Your task to perform on an android device: Show me productivity apps on the Play Store Image 0: 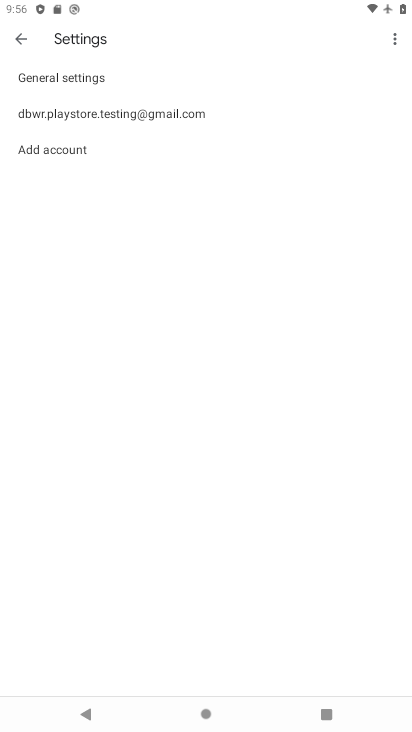
Step 0: press home button
Your task to perform on an android device: Show me productivity apps on the Play Store Image 1: 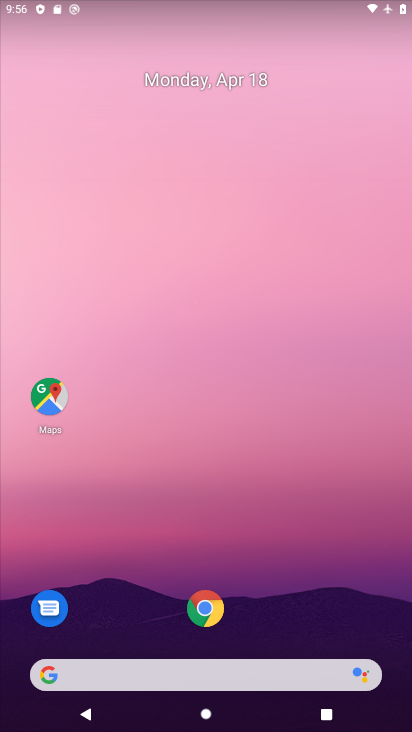
Step 1: drag from (309, 573) to (334, 96)
Your task to perform on an android device: Show me productivity apps on the Play Store Image 2: 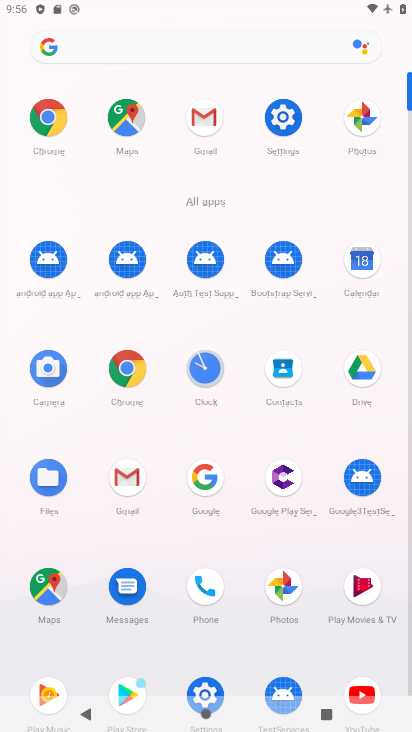
Step 2: drag from (321, 643) to (306, 243)
Your task to perform on an android device: Show me productivity apps on the Play Store Image 3: 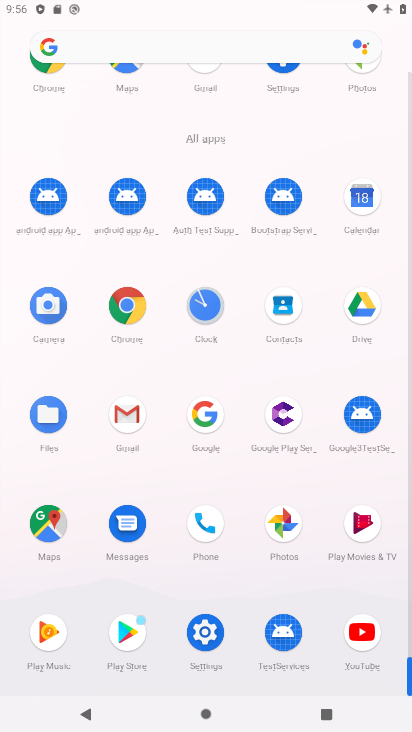
Step 3: click (121, 627)
Your task to perform on an android device: Show me productivity apps on the Play Store Image 4: 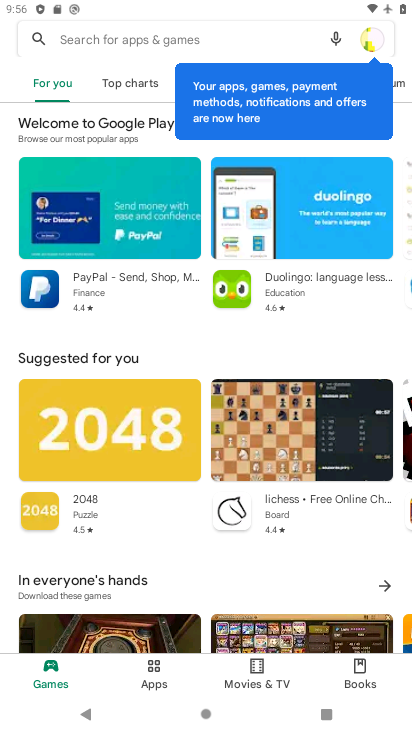
Step 4: click (155, 99)
Your task to perform on an android device: Show me productivity apps on the Play Store Image 5: 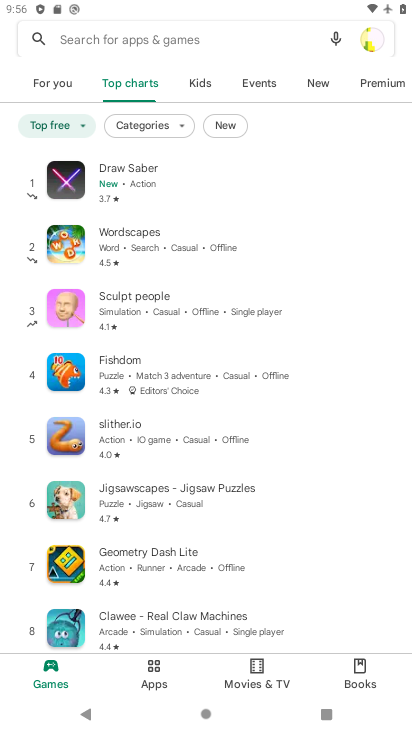
Step 5: drag from (359, 83) to (232, 83)
Your task to perform on an android device: Show me productivity apps on the Play Store Image 6: 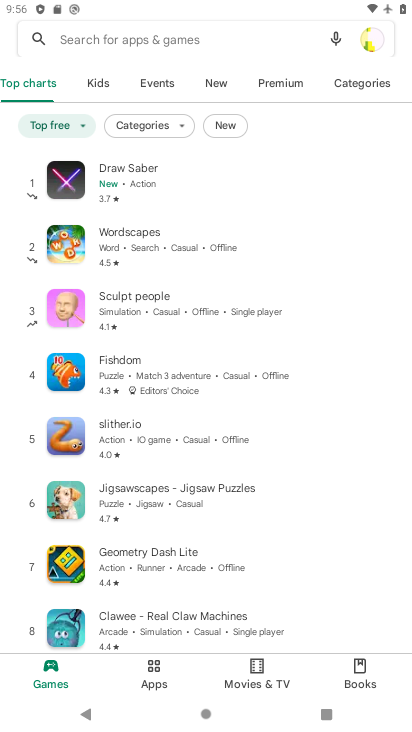
Step 6: click (349, 89)
Your task to perform on an android device: Show me productivity apps on the Play Store Image 7: 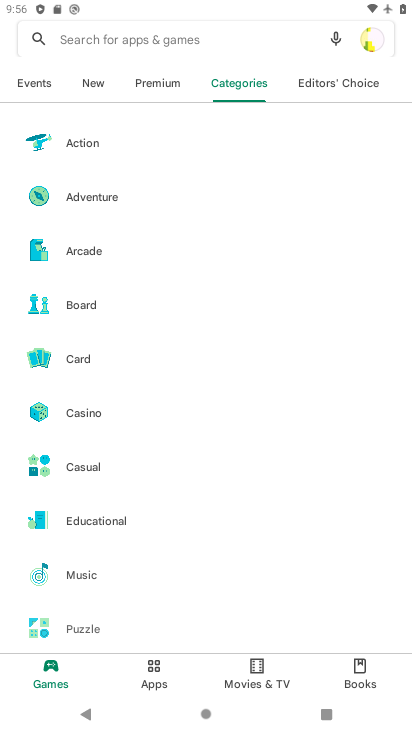
Step 7: drag from (269, 456) to (250, 228)
Your task to perform on an android device: Show me productivity apps on the Play Store Image 8: 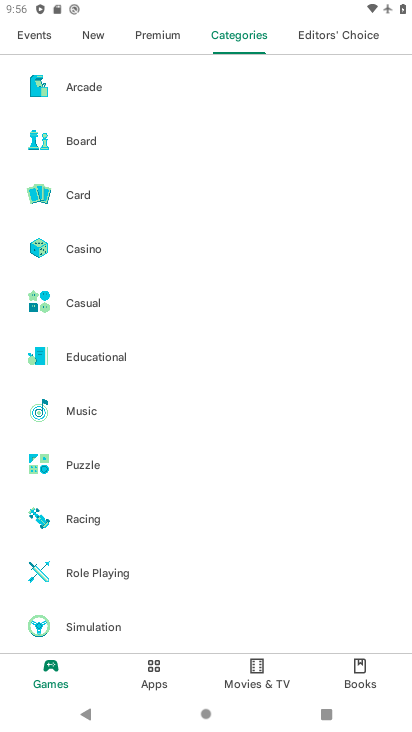
Step 8: drag from (238, 598) to (248, 433)
Your task to perform on an android device: Show me productivity apps on the Play Store Image 9: 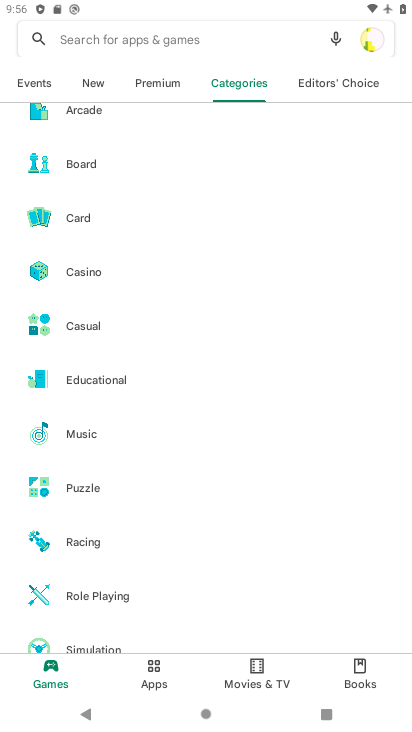
Step 9: drag from (188, 257) to (212, 452)
Your task to perform on an android device: Show me productivity apps on the Play Store Image 10: 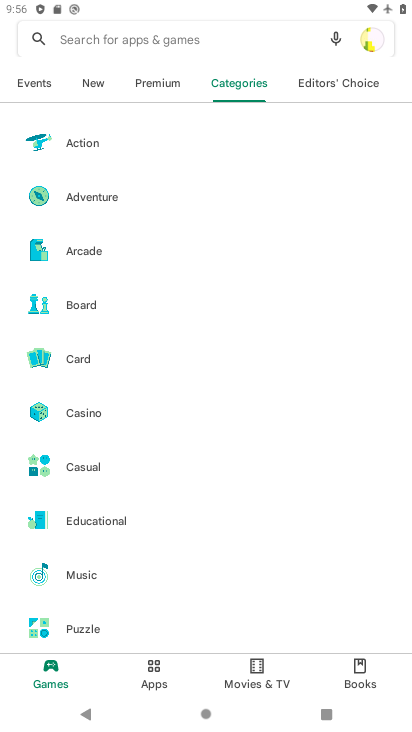
Step 10: drag from (164, 265) to (175, 357)
Your task to perform on an android device: Show me productivity apps on the Play Store Image 11: 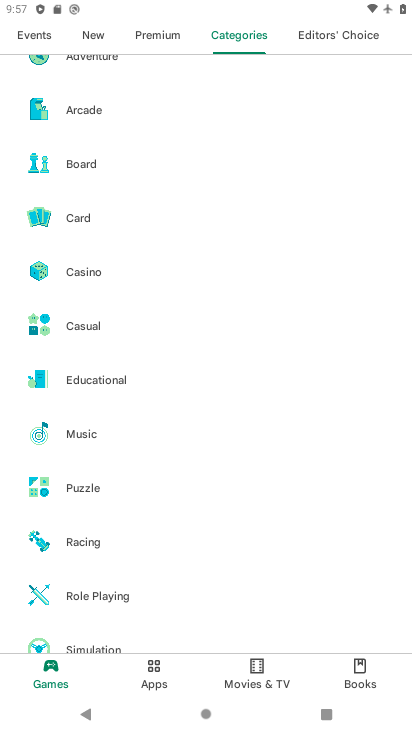
Step 11: drag from (160, 532) to (163, 202)
Your task to perform on an android device: Show me productivity apps on the Play Store Image 12: 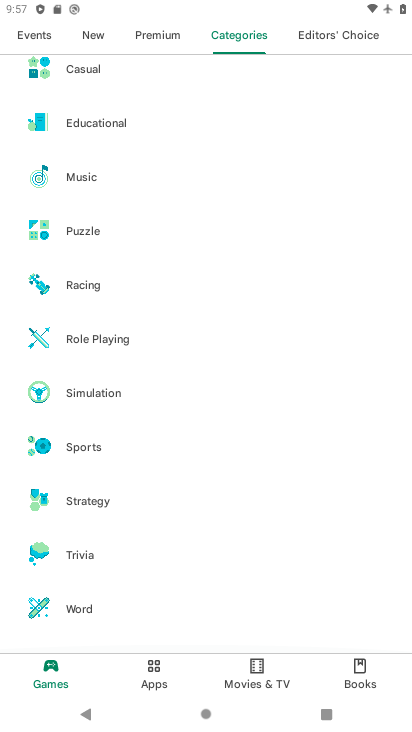
Step 12: drag from (151, 571) to (153, 378)
Your task to perform on an android device: Show me productivity apps on the Play Store Image 13: 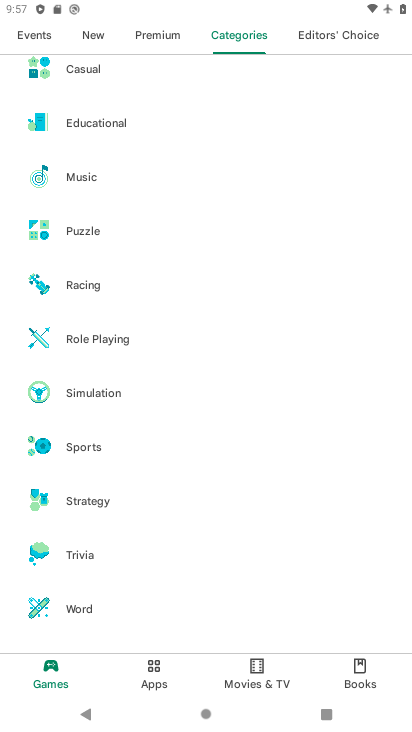
Step 13: click (147, 666)
Your task to perform on an android device: Show me productivity apps on the Play Store Image 14: 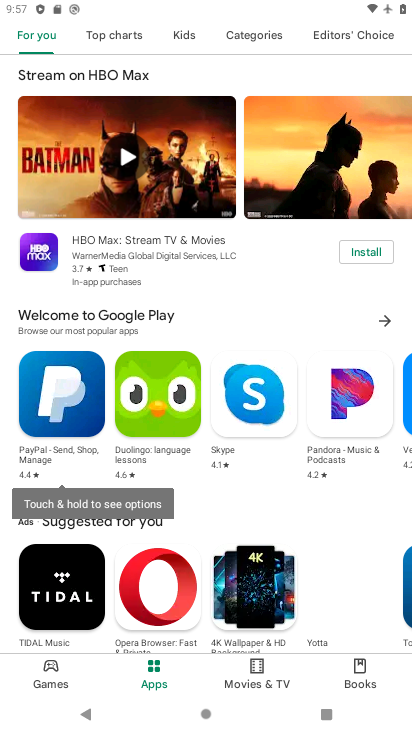
Step 14: click (256, 42)
Your task to perform on an android device: Show me productivity apps on the Play Store Image 15: 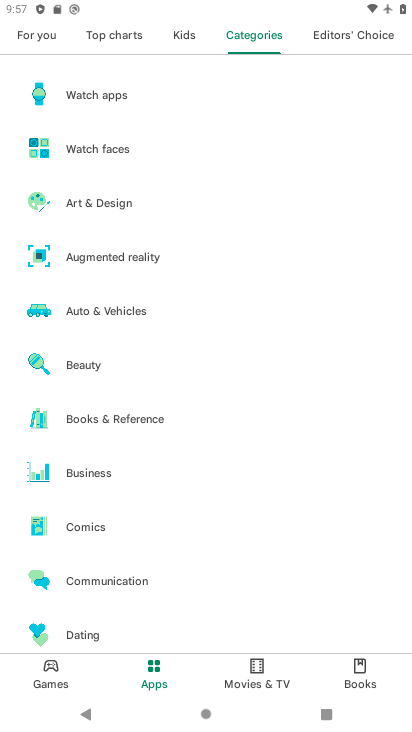
Step 15: drag from (226, 470) to (249, 169)
Your task to perform on an android device: Show me productivity apps on the Play Store Image 16: 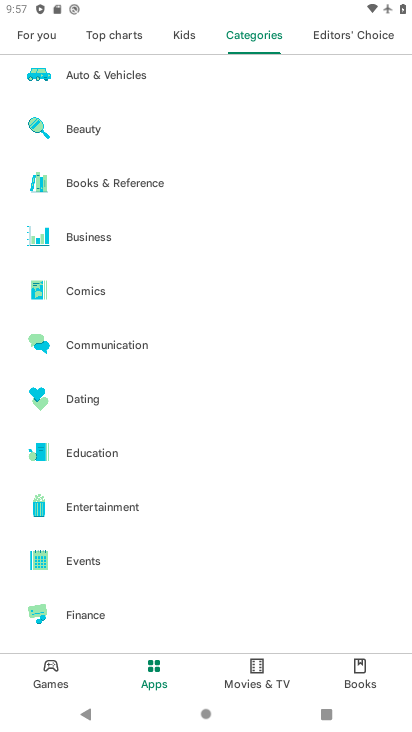
Step 16: drag from (222, 548) to (269, 133)
Your task to perform on an android device: Show me productivity apps on the Play Store Image 17: 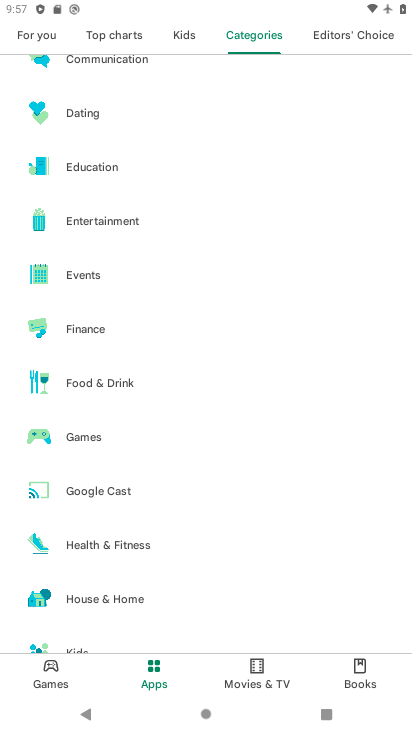
Step 17: drag from (262, 602) to (275, 265)
Your task to perform on an android device: Show me productivity apps on the Play Store Image 18: 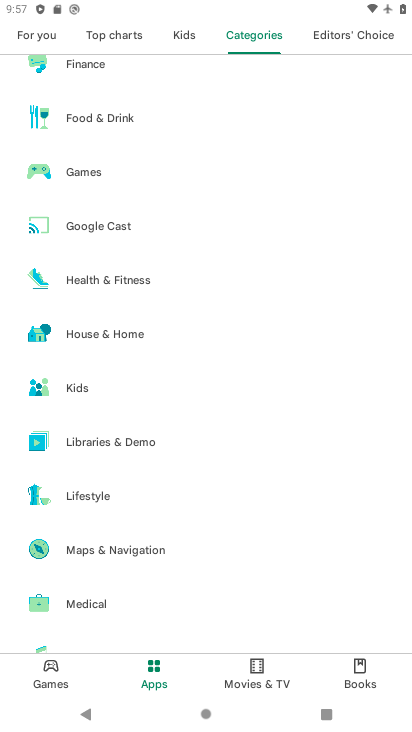
Step 18: drag from (157, 543) to (175, 279)
Your task to perform on an android device: Show me productivity apps on the Play Store Image 19: 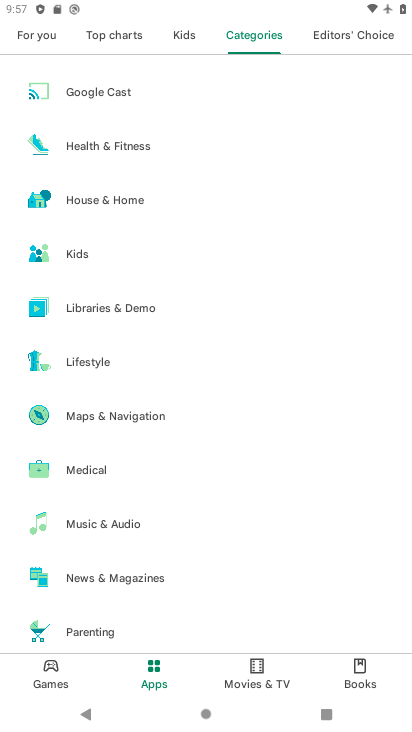
Step 19: drag from (167, 617) to (212, 283)
Your task to perform on an android device: Show me productivity apps on the Play Store Image 20: 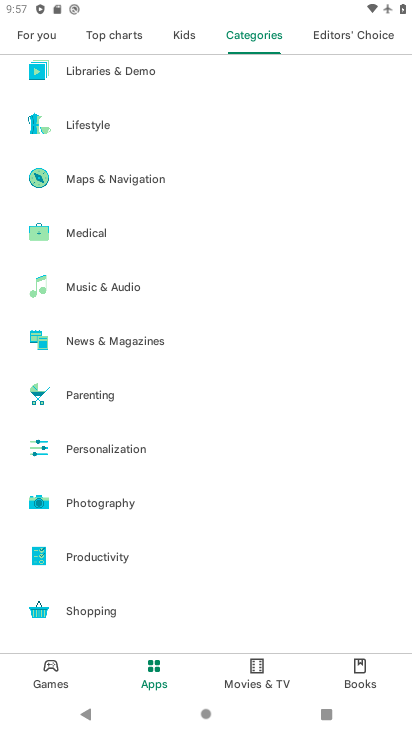
Step 20: click (123, 558)
Your task to perform on an android device: Show me productivity apps on the Play Store Image 21: 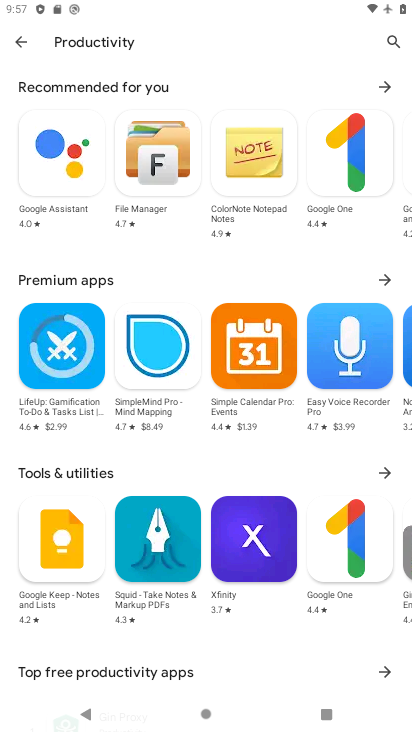
Step 21: task complete